Your task to perform on an android device: Open battery settings Image 0: 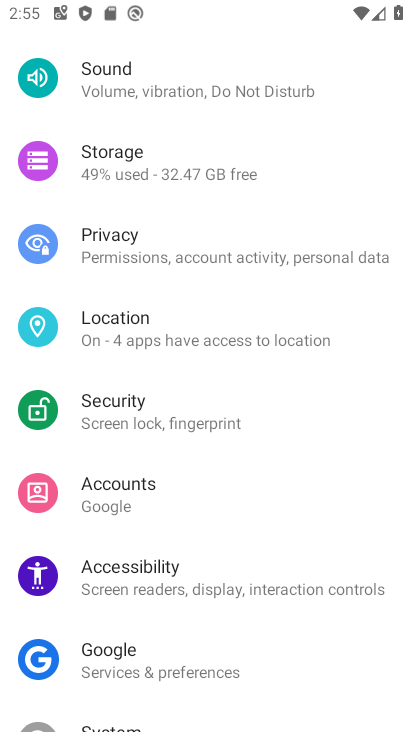
Step 0: press home button
Your task to perform on an android device: Open battery settings Image 1: 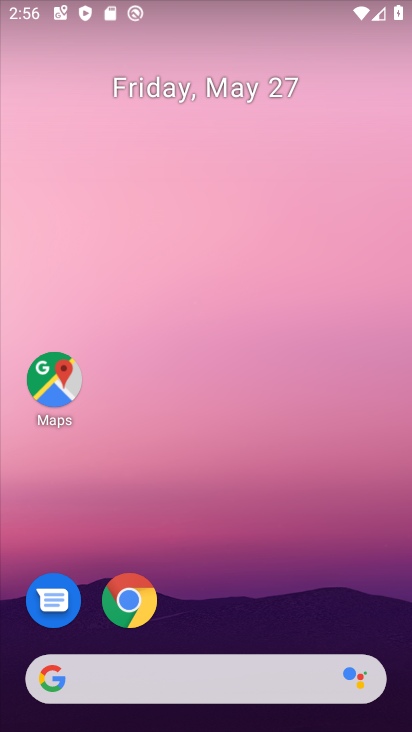
Step 1: drag from (312, 537) to (261, 53)
Your task to perform on an android device: Open battery settings Image 2: 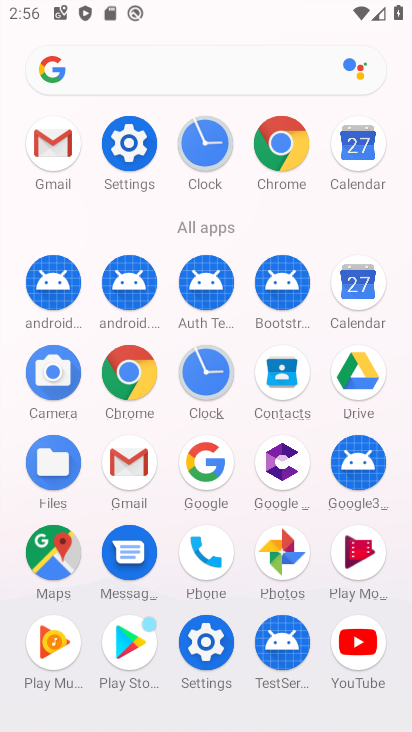
Step 2: click (130, 124)
Your task to perform on an android device: Open battery settings Image 3: 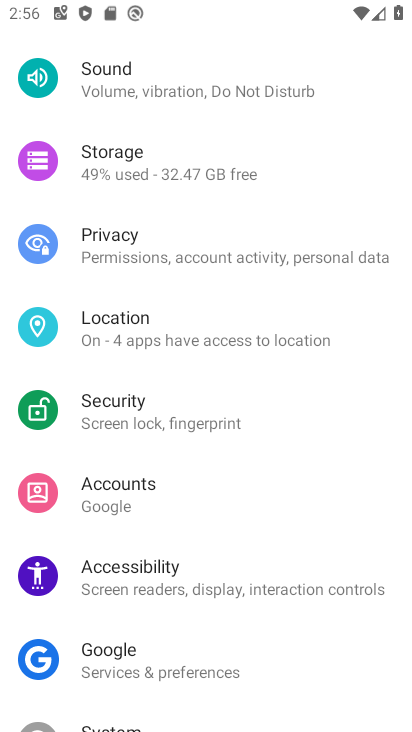
Step 3: drag from (206, 166) to (244, 549)
Your task to perform on an android device: Open battery settings Image 4: 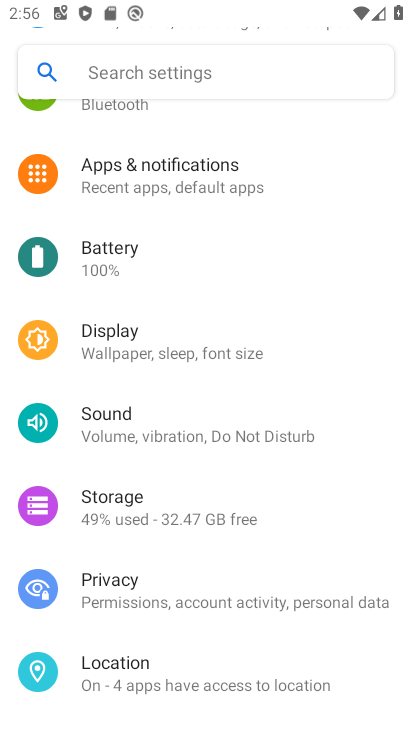
Step 4: click (143, 247)
Your task to perform on an android device: Open battery settings Image 5: 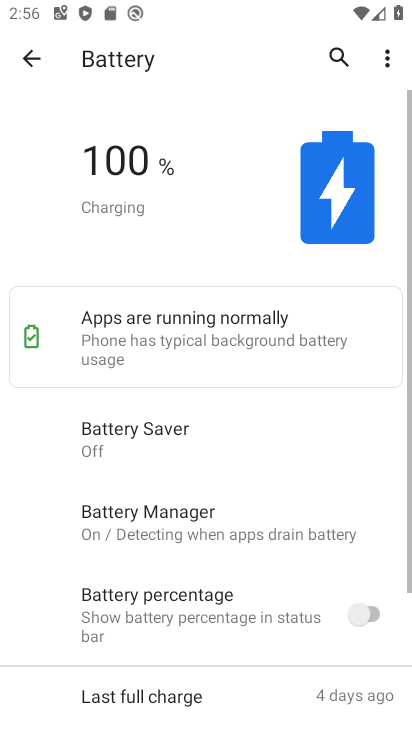
Step 5: task complete